Your task to perform on an android device: Turn off the flashlight Image 0: 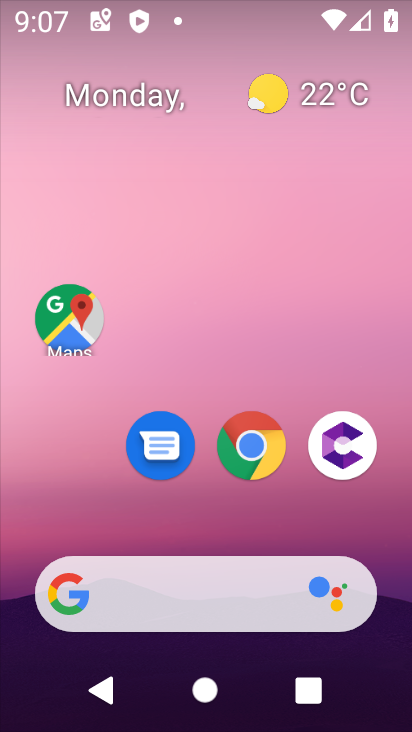
Step 0: press home button
Your task to perform on an android device: Turn off the flashlight Image 1: 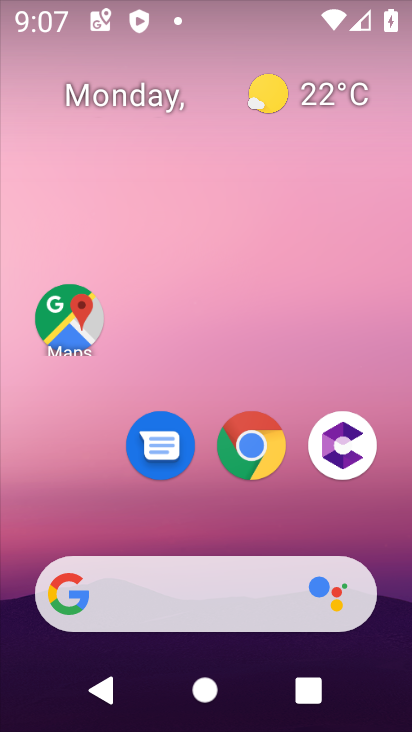
Step 1: task complete